Your task to perform on an android device: choose inbox layout in the gmail app Image 0: 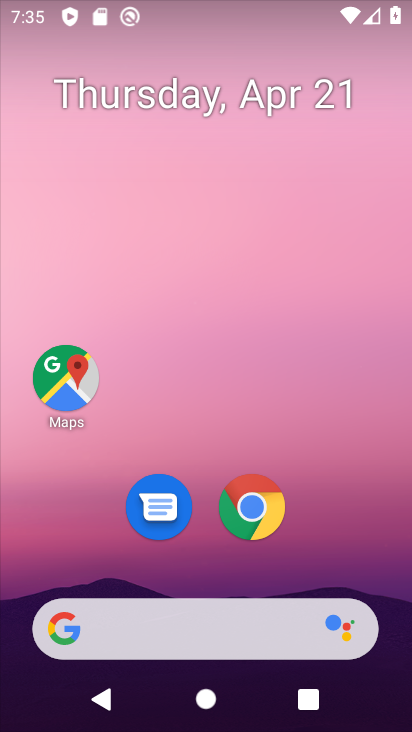
Step 0: drag from (351, 533) to (350, 0)
Your task to perform on an android device: choose inbox layout in the gmail app Image 1: 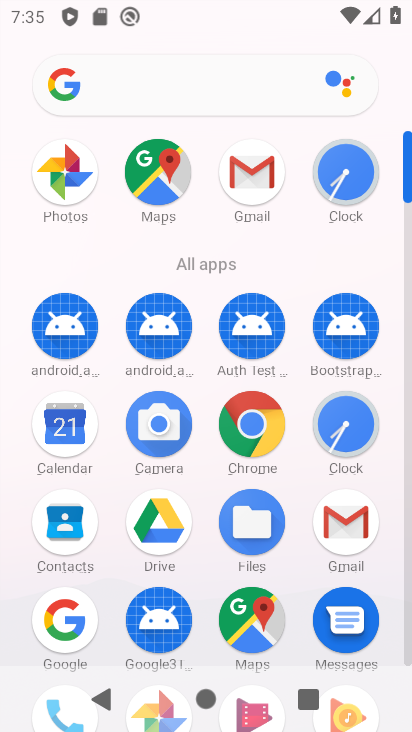
Step 1: click (263, 185)
Your task to perform on an android device: choose inbox layout in the gmail app Image 2: 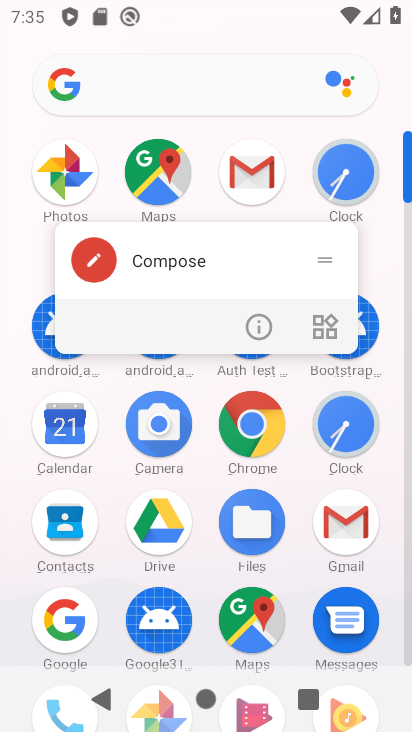
Step 2: click (347, 520)
Your task to perform on an android device: choose inbox layout in the gmail app Image 3: 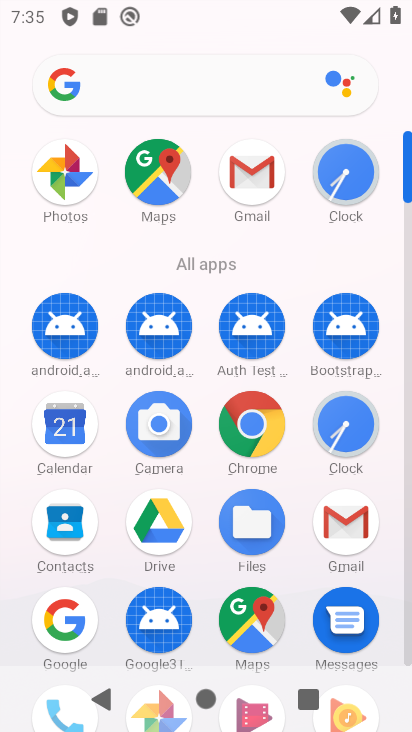
Step 3: click (346, 526)
Your task to perform on an android device: choose inbox layout in the gmail app Image 4: 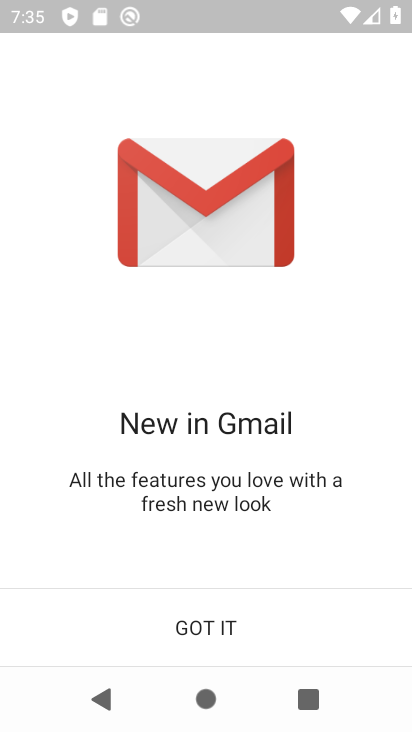
Step 4: click (187, 626)
Your task to perform on an android device: choose inbox layout in the gmail app Image 5: 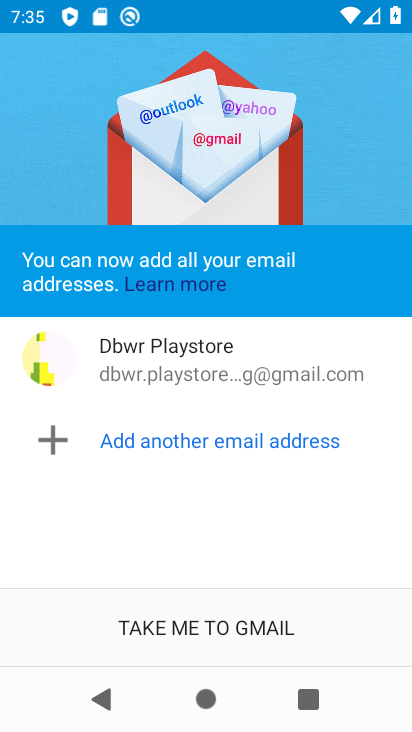
Step 5: click (194, 621)
Your task to perform on an android device: choose inbox layout in the gmail app Image 6: 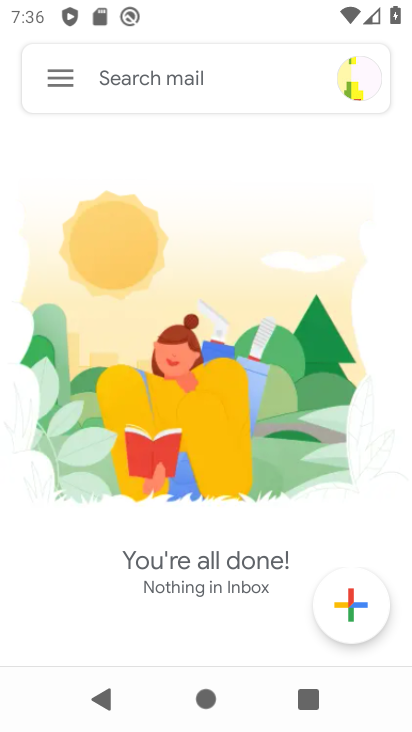
Step 6: click (62, 67)
Your task to perform on an android device: choose inbox layout in the gmail app Image 7: 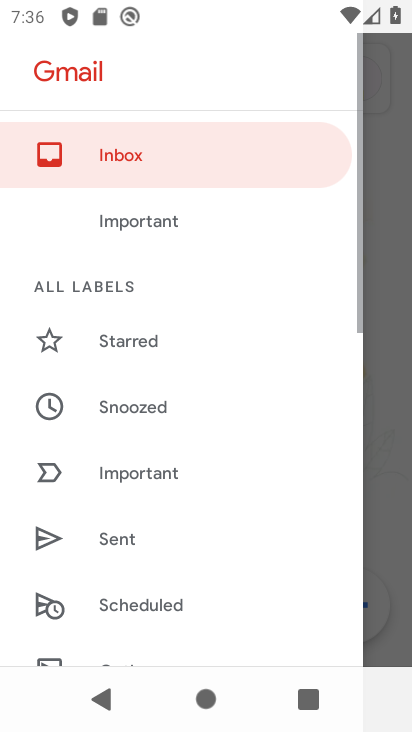
Step 7: drag from (107, 548) to (223, 51)
Your task to perform on an android device: choose inbox layout in the gmail app Image 8: 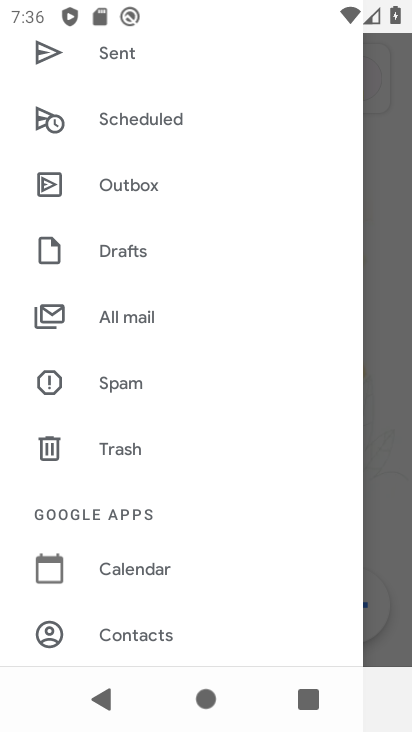
Step 8: drag from (166, 512) to (339, 127)
Your task to perform on an android device: choose inbox layout in the gmail app Image 9: 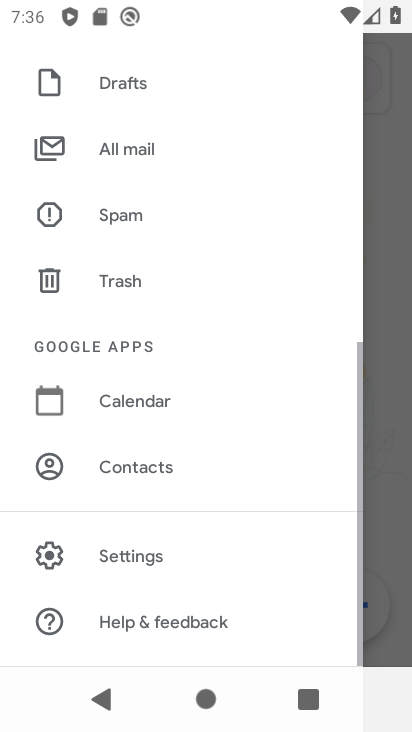
Step 9: click (151, 546)
Your task to perform on an android device: choose inbox layout in the gmail app Image 10: 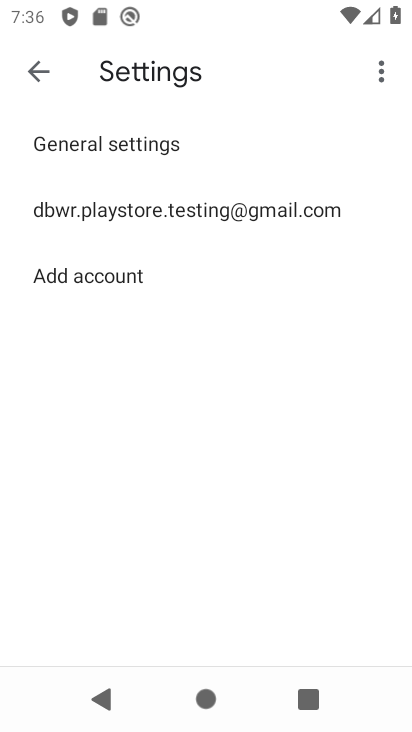
Step 10: click (194, 219)
Your task to perform on an android device: choose inbox layout in the gmail app Image 11: 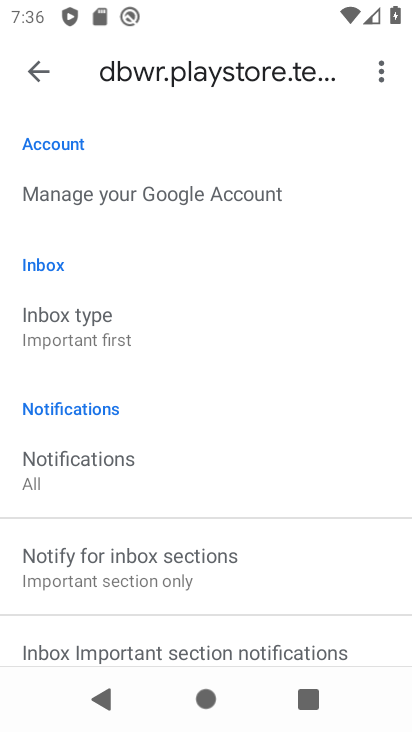
Step 11: click (109, 321)
Your task to perform on an android device: choose inbox layout in the gmail app Image 12: 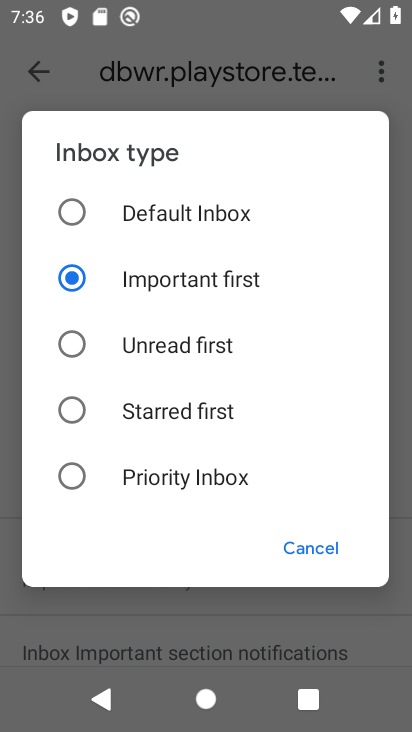
Step 12: task complete